Your task to perform on an android device: allow notifications from all sites in the chrome app Image 0: 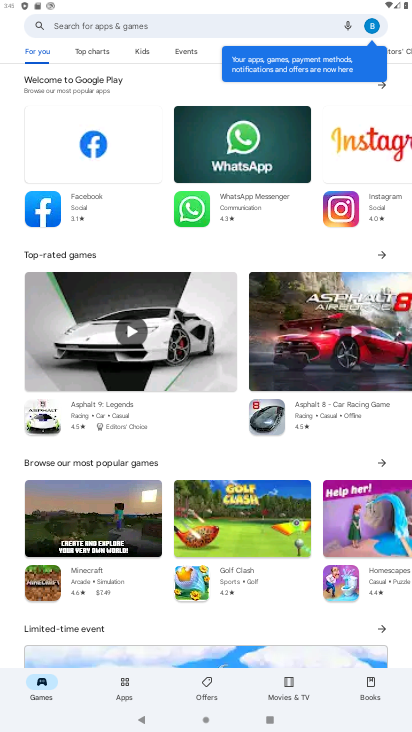
Step 0: press home button
Your task to perform on an android device: allow notifications from all sites in the chrome app Image 1: 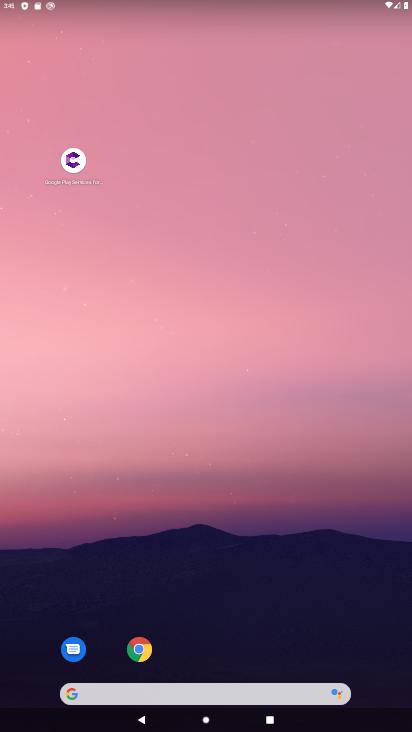
Step 1: click (137, 651)
Your task to perform on an android device: allow notifications from all sites in the chrome app Image 2: 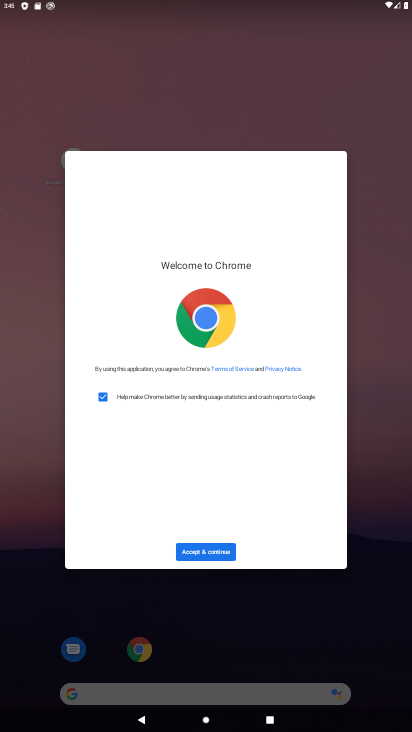
Step 2: click (201, 552)
Your task to perform on an android device: allow notifications from all sites in the chrome app Image 3: 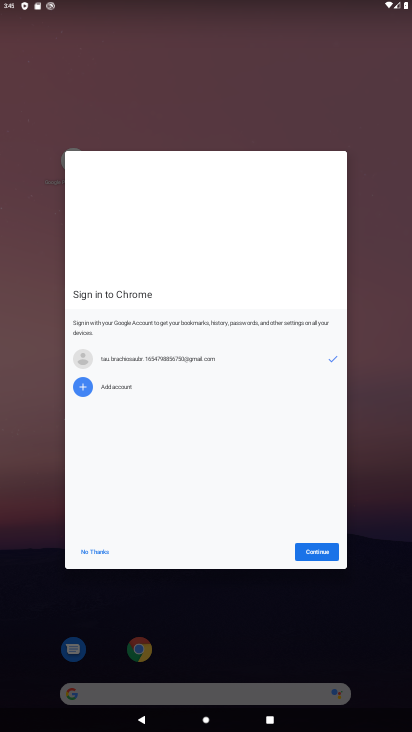
Step 3: click (308, 557)
Your task to perform on an android device: allow notifications from all sites in the chrome app Image 4: 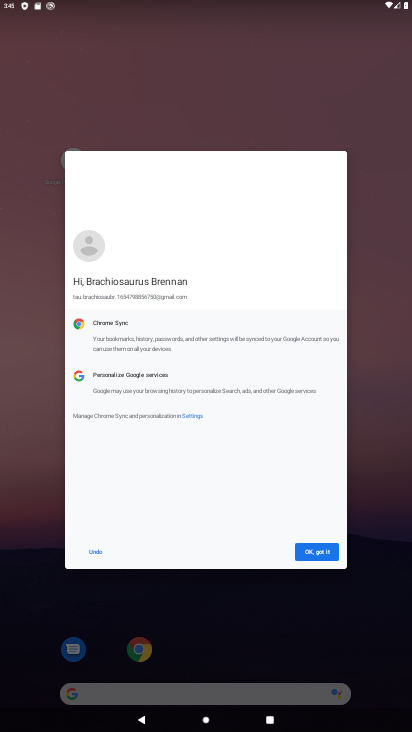
Step 4: click (323, 549)
Your task to perform on an android device: allow notifications from all sites in the chrome app Image 5: 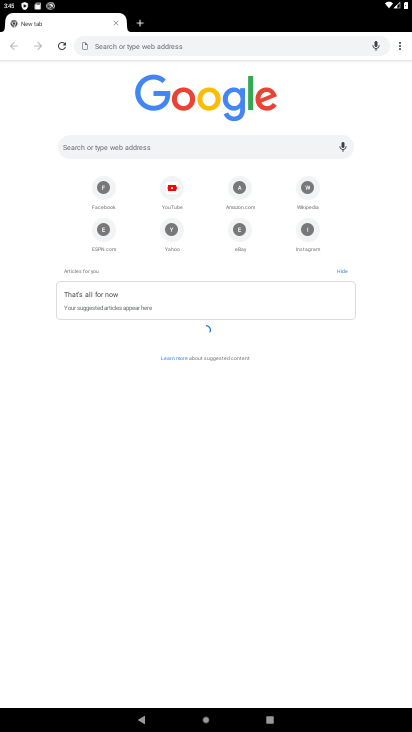
Step 5: click (394, 41)
Your task to perform on an android device: allow notifications from all sites in the chrome app Image 6: 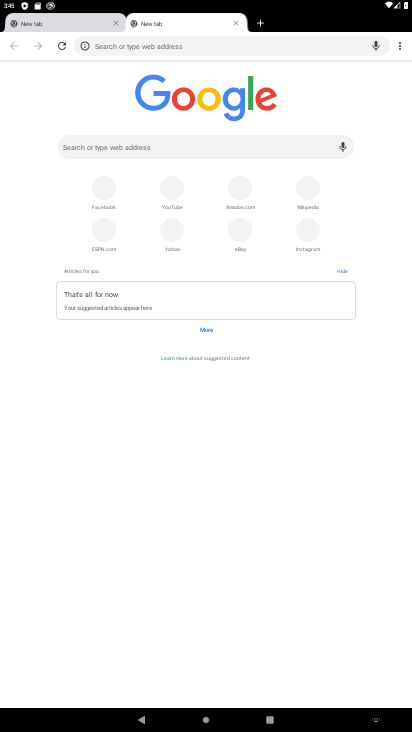
Step 6: click (399, 42)
Your task to perform on an android device: allow notifications from all sites in the chrome app Image 7: 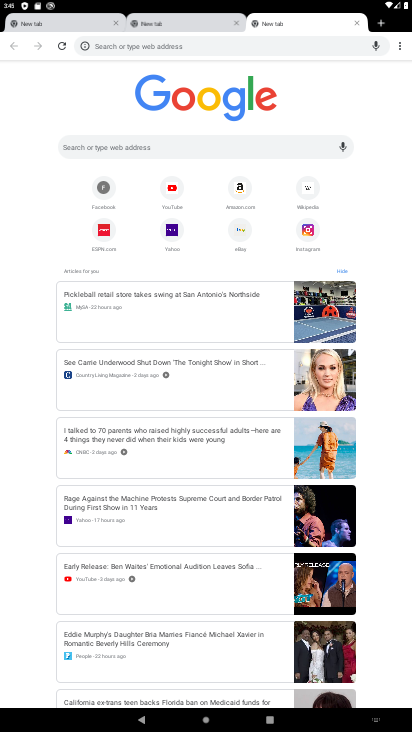
Step 7: click (394, 44)
Your task to perform on an android device: allow notifications from all sites in the chrome app Image 8: 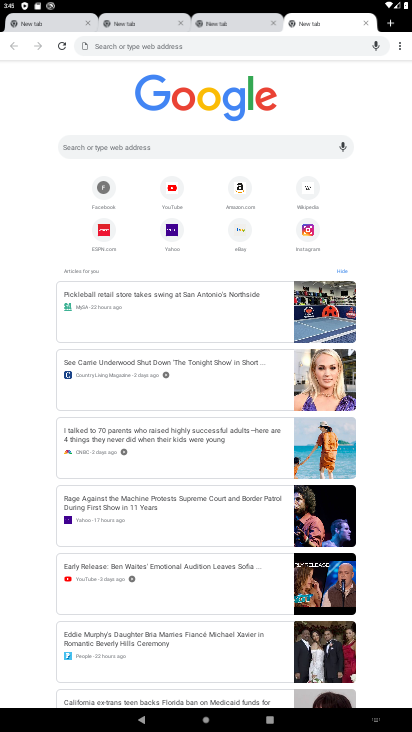
Step 8: click (400, 44)
Your task to perform on an android device: allow notifications from all sites in the chrome app Image 9: 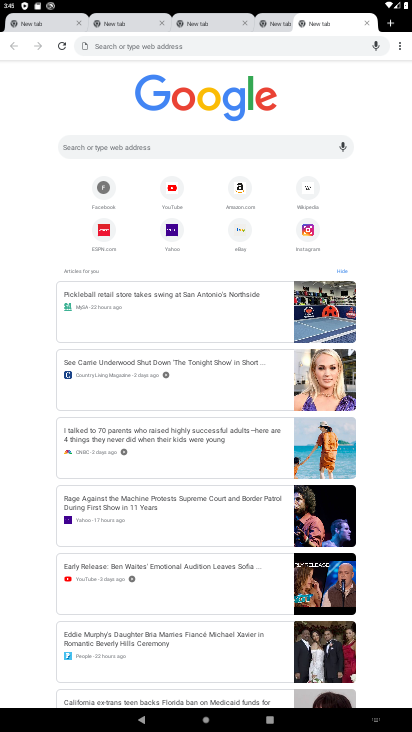
Step 9: task complete